Your task to perform on an android device: Search for runner rugs on Crate & Barrel Image 0: 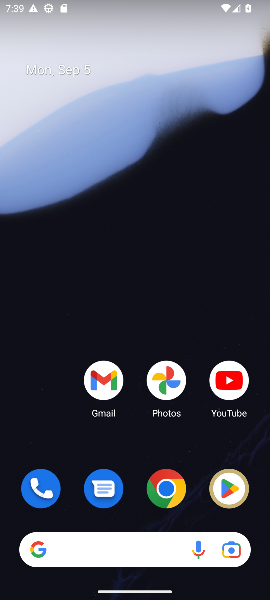
Step 0: click (163, 506)
Your task to perform on an android device: Search for runner rugs on Crate & Barrel Image 1: 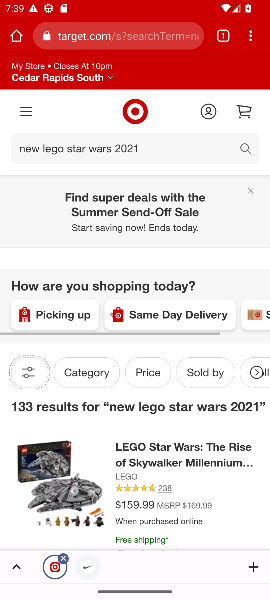
Step 1: click (131, 43)
Your task to perform on an android device: Search for runner rugs on Crate & Barrel Image 2: 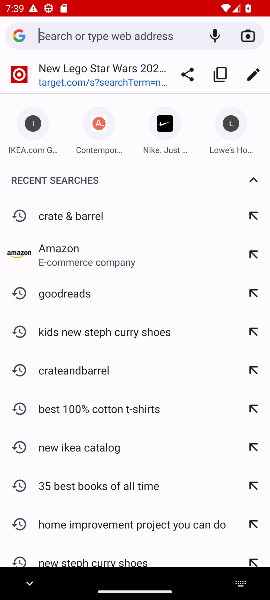
Step 2: type "crate & barrel"
Your task to perform on an android device: Search for runner rugs on Crate & Barrel Image 3: 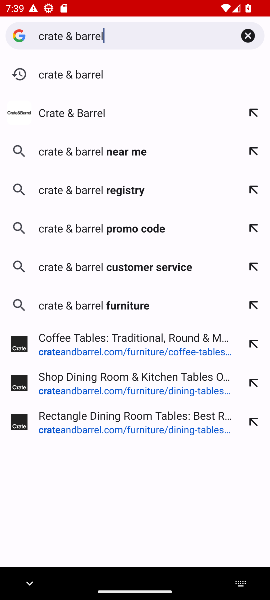
Step 3: press enter
Your task to perform on an android device: Search for runner rugs on Crate & Barrel Image 4: 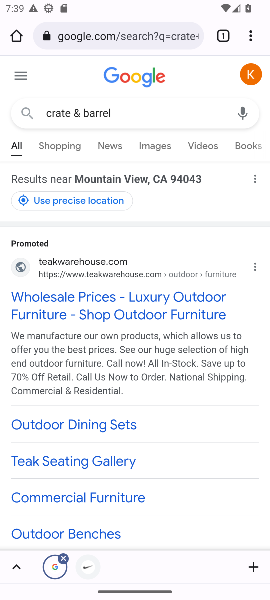
Step 4: drag from (148, 392) to (168, 186)
Your task to perform on an android device: Search for runner rugs on Crate & Barrel Image 5: 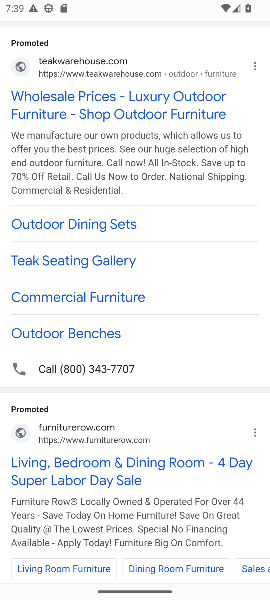
Step 5: drag from (113, 535) to (140, 285)
Your task to perform on an android device: Search for runner rugs on Crate & Barrel Image 6: 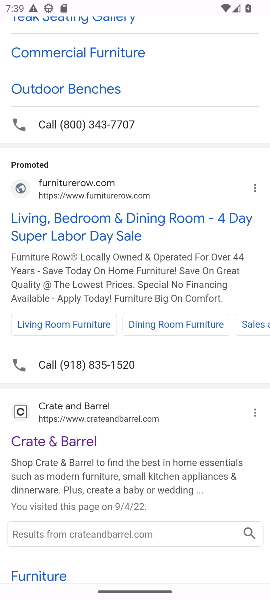
Step 6: click (66, 453)
Your task to perform on an android device: Search for runner rugs on Crate & Barrel Image 7: 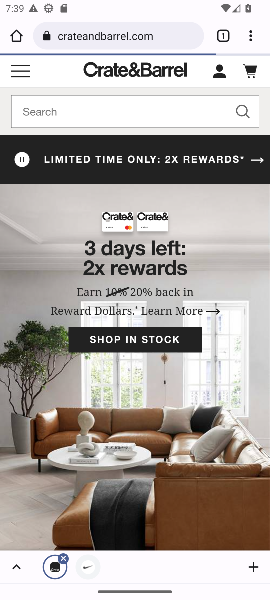
Step 7: click (112, 116)
Your task to perform on an android device: Search for runner rugs on Crate & Barrel Image 8: 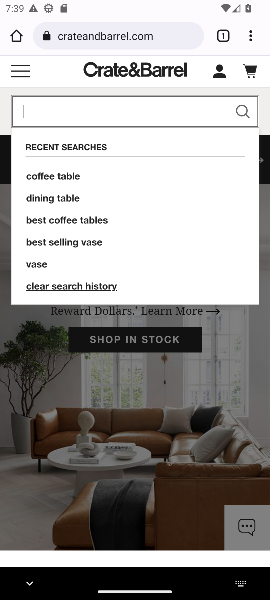
Step 8: type "runner rugs"
Your task to perform on an android device: Search for runner rugs on Crate & Barrel Image 9: 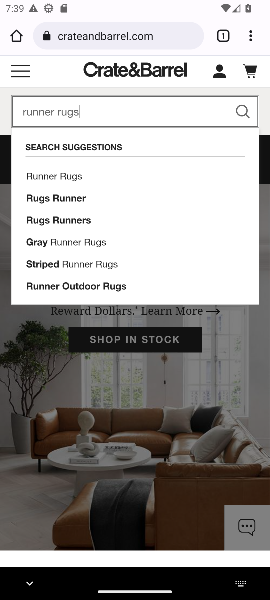
Step 9: press enter
Your task to perform on an android device: Search for runner rugs on Crate & Barrel Image 10: 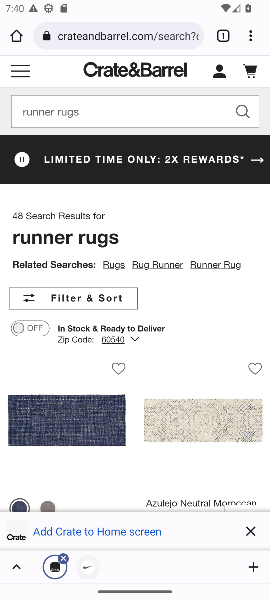
Step 10: task complete